Your task to perform on an android device: Go to Google maps Image 0: 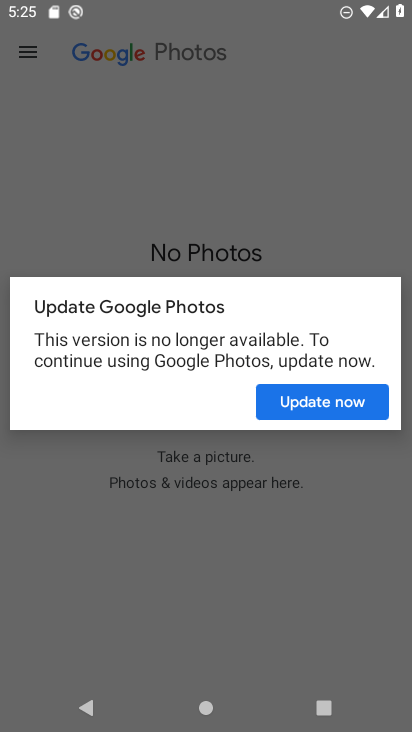
Step 0: press home button
Your task to perform on an android device: Go to Google maps Image 1: 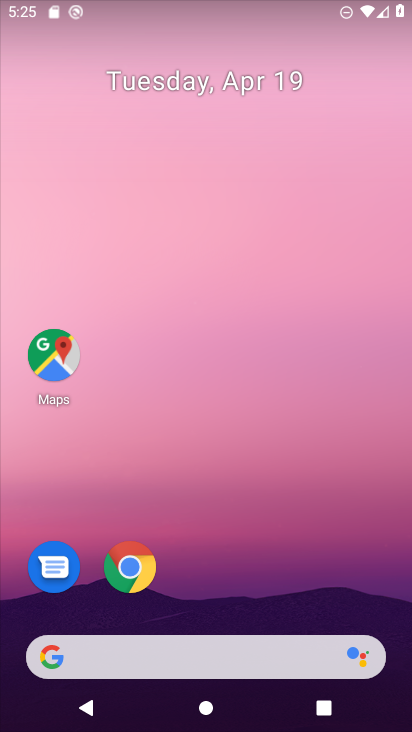
Step 1: drag from (302, 575) to (259, 46)
Your task to perform on an android device: Go to Google maps Image 2: 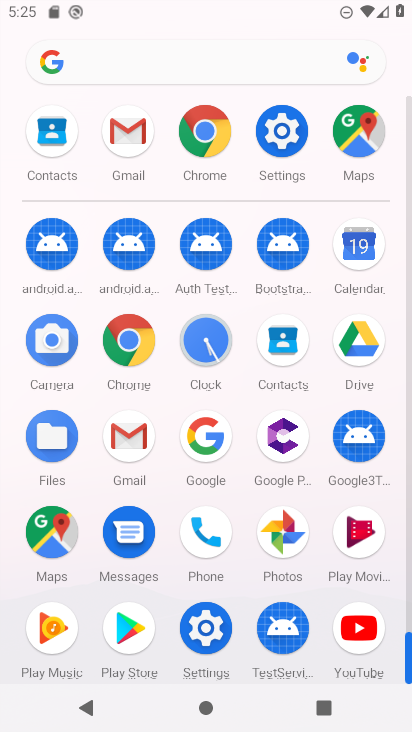
Step 2: click (45, 528)
Your task to perform on an android device: Go to Google maps Image 3: 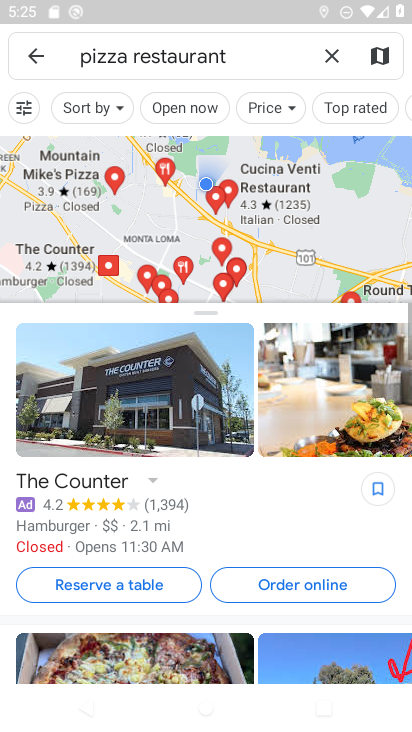
Step 3: click (339, 61)
Your task to perform on an android device: Go to Google maps Image 4: 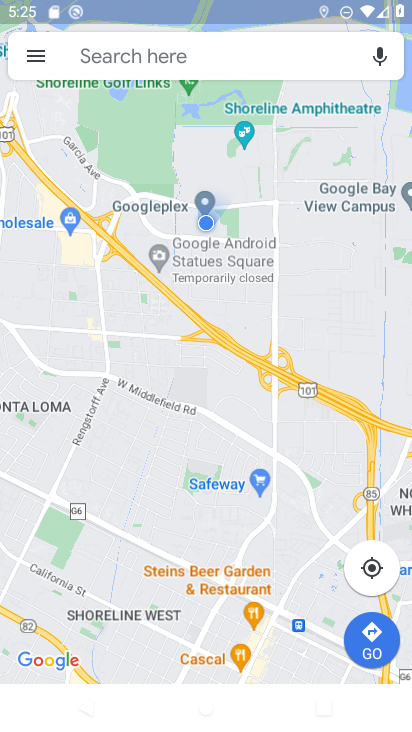
Step 4: task complete